Your task to perform on an android device: Open calendar and show me the third week of next month Image 0: 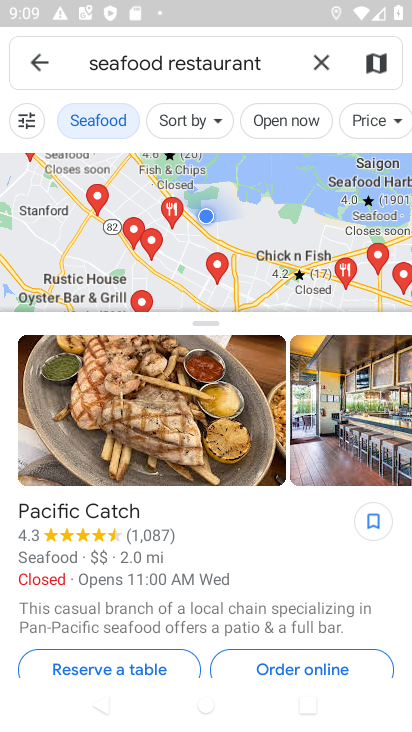
Step 0: press home button
Your task to perform on an android device: Open calendar and show me the third week of next month Image 1: 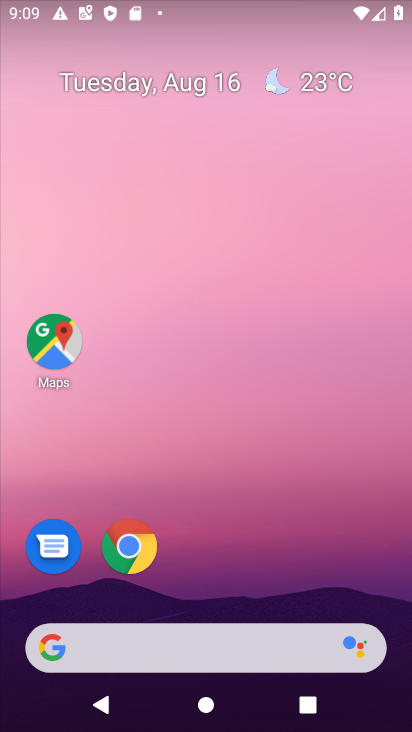
Step 1: drag from (221, 539) to (270, 0)
Your task to perform on an android device: Open calendar and show me the third week of next month Image 2: 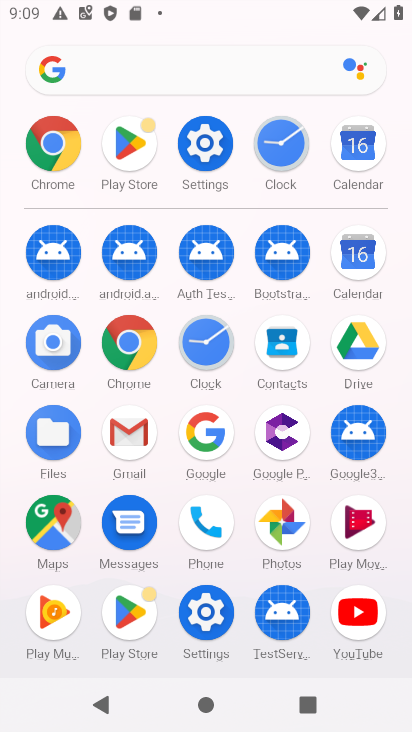
Step 2: click (362, 148)
Your task to perform on an android device: Open calendar and show me the third week of next month Image 3: 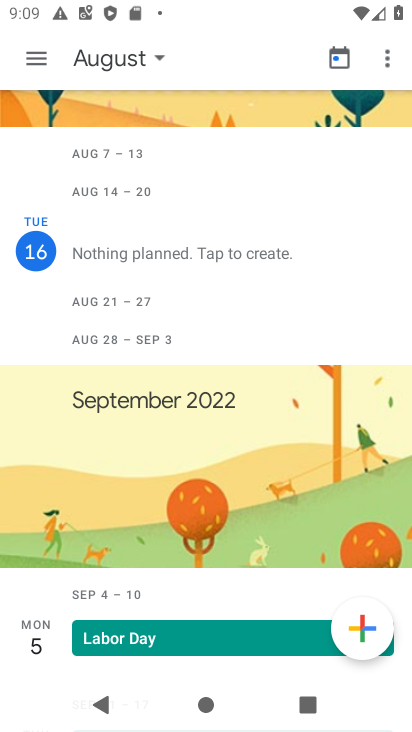
Step 3: click (34, 53)
Your task to perform on an android device: Open calendar and show me the third week of next month Image 4: 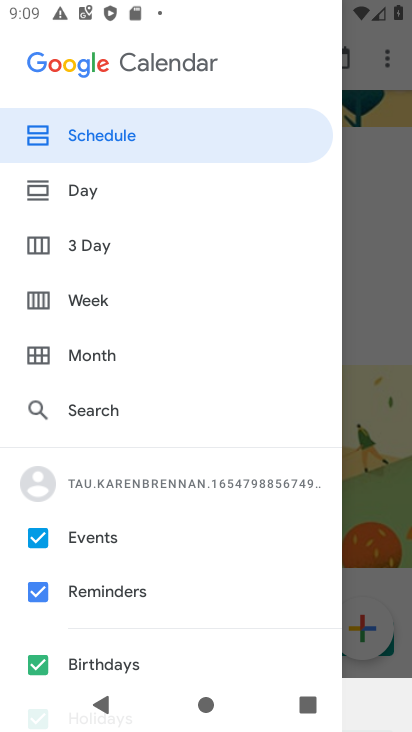
Step 4: click (41, 355)
Your task to perform on an android device: Open calendar and show me the third week of next month Image 5: 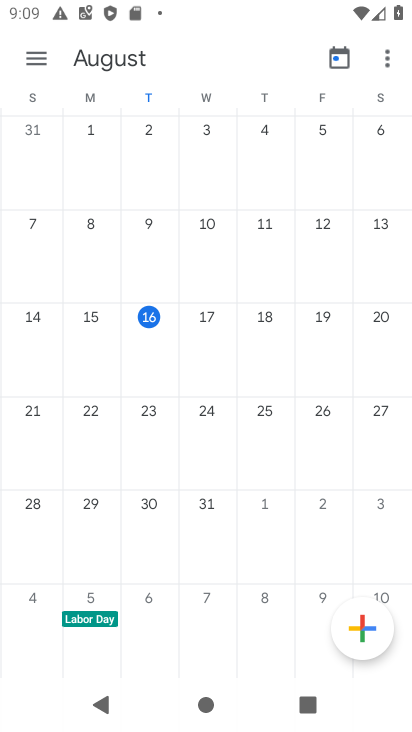
Step 5: drag from (369, 253) to (2, 279)
Your task to perform on an android device: Open calendar and show me the third week of next month Image 6: 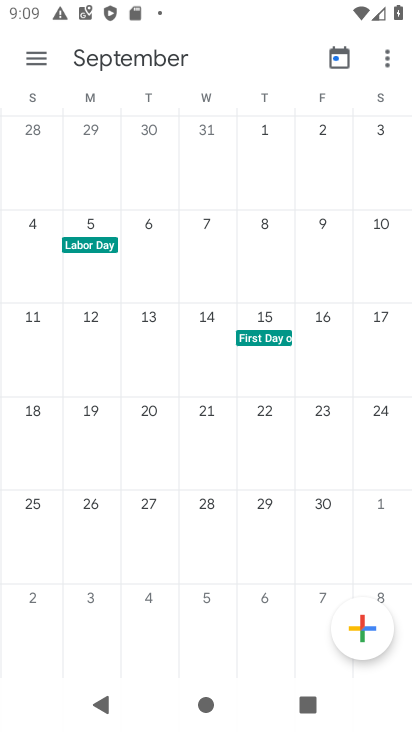
Step 6: click (36, 417)
Your task to perform on an android device: Open calendar and show me the third week of next month Image 7: 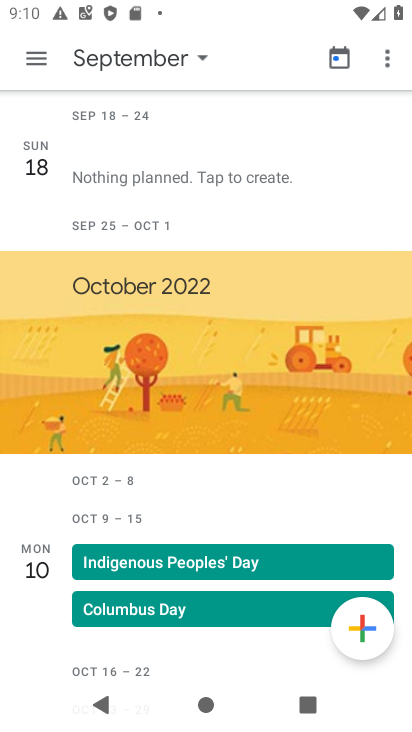
Step 7: click (40, 61)
Your task to perform on an android device: Open calendar and show me the third week of next month Image 8: 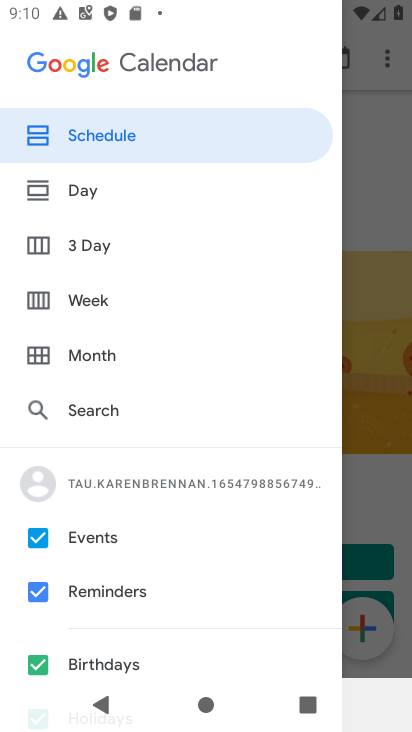
Step 8: click (43, 297)
Your task to perform on an android device: Open calendar and show me the third week of next month Image 9: 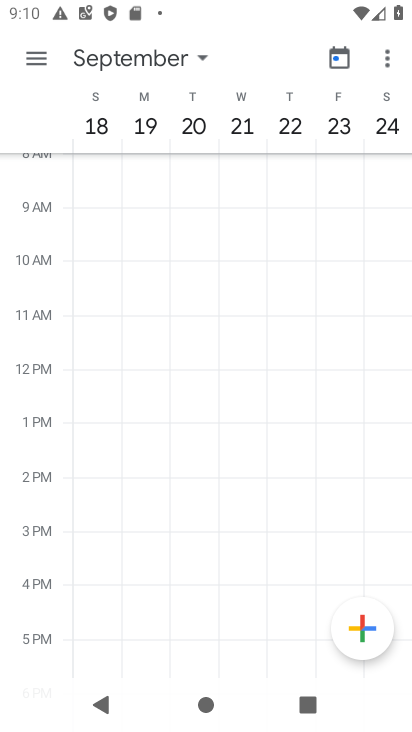
Step 9: task complete